Your task to perform on an android device: Open battery settings Image 0: 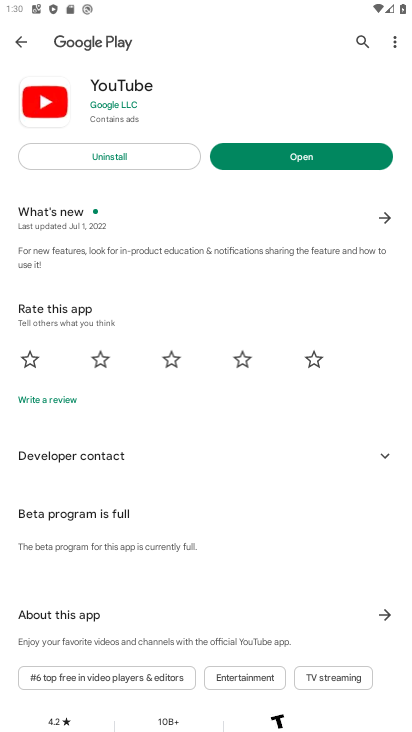
Step 0: press home button
Your task to perform on an android device: Open battery settings Image 1: 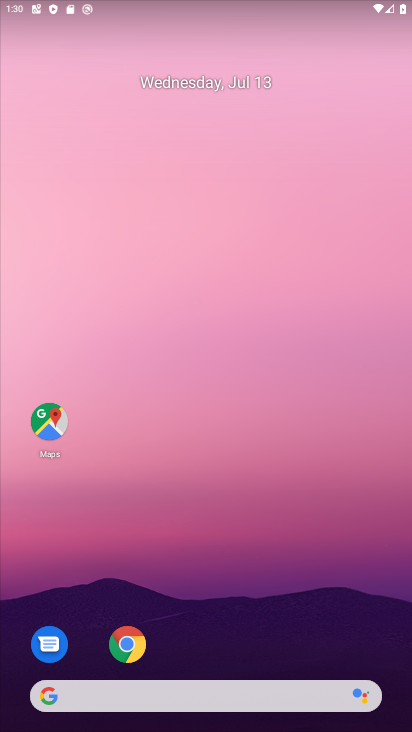
Step 1: drag from (266, 608) to (278, 79)
Your task to perform on an android device: Open battery settings Image 2: 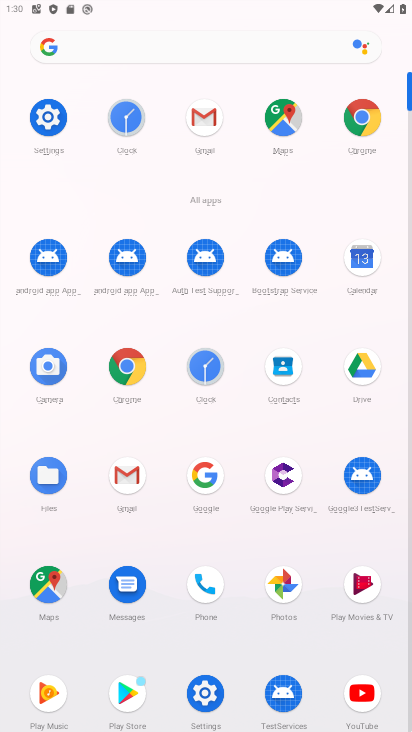
Step 2: click (47, 110)
Your task to perform on an android device: Open battery settings Image 3: 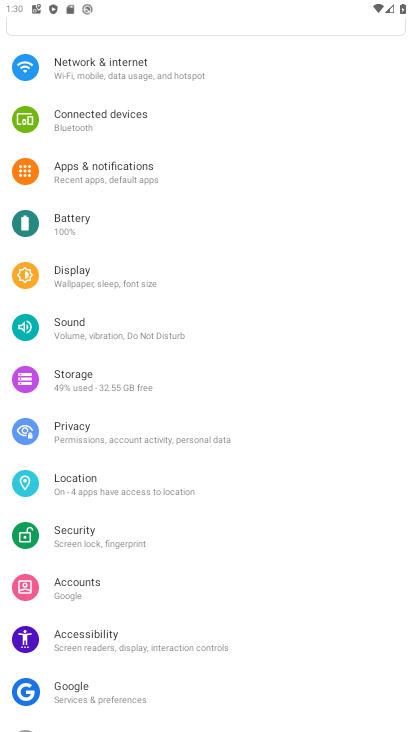
Step 3: click (105, 224)
Your task to perform on an android device: Open battery settings Image 4: 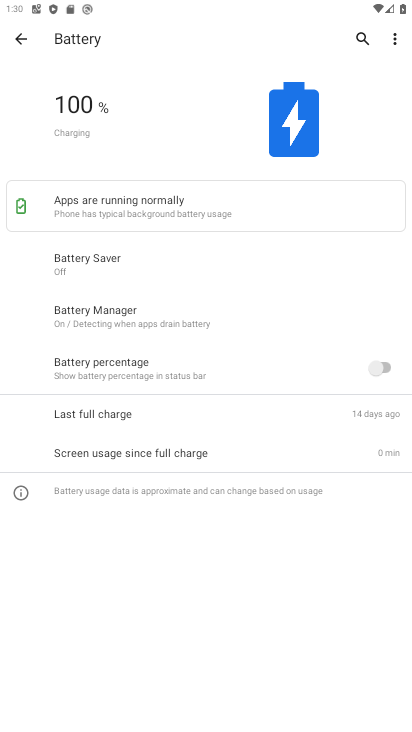
Step 4: task complete